Your task to perform on an android device: Go to accessibility settings Image 0: 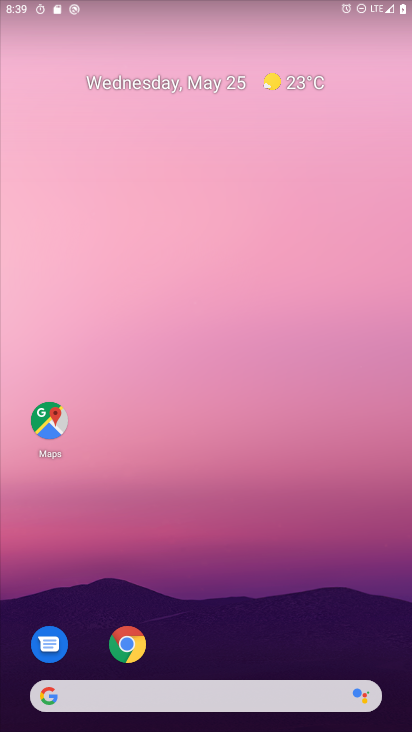
Step 0: drag from (309, 612) to (286, 172)
Your task to perform on an android device: Go to accessibility settings Image 1: 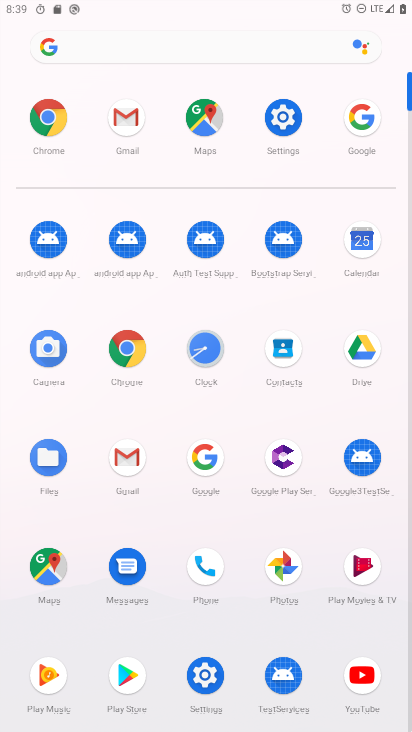
Step 1: click (203, 697)
Your task to perform on an android device: Go to accessibility settings Image 2: 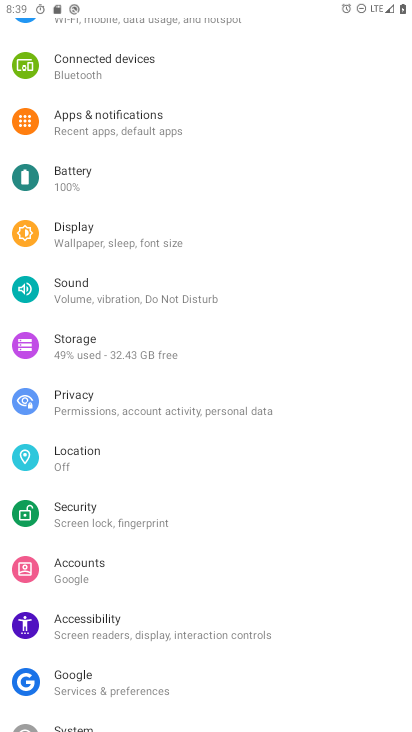
Step 2: click (113, 630)
Your task to perform on an android device: Go to accessibility settings Image 3: 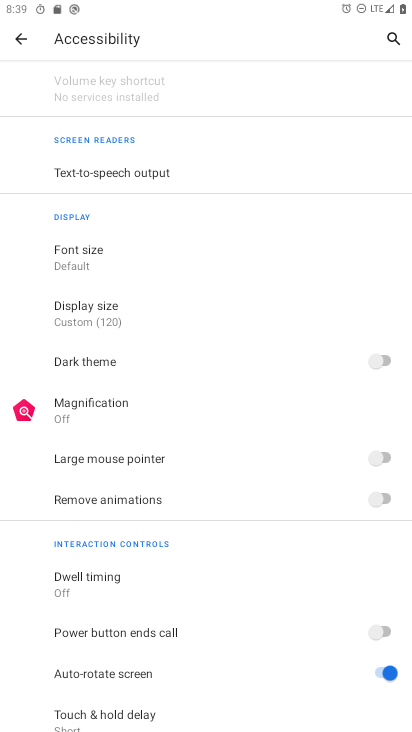
Step 3: task complete